Your task to perform on an android device: Open calendar and show me the fourth week of next month Image 0: 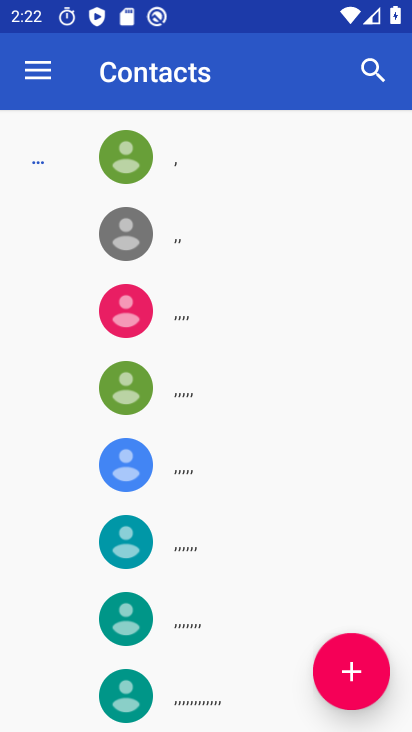
Step 0: press home button
Your task to perform on an android device: Open calendar and show me the fourth week of next month Image 1: 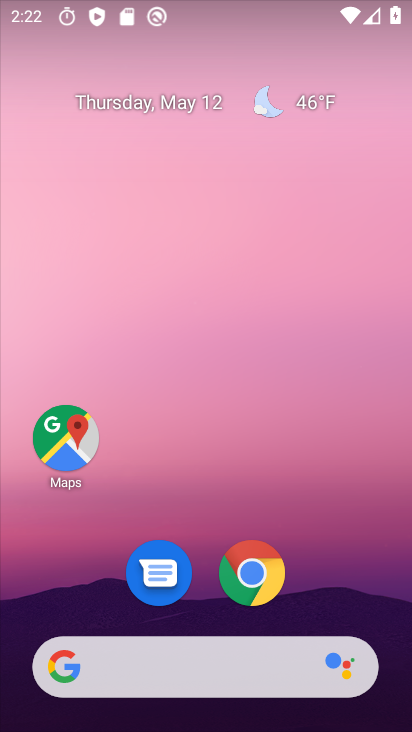
Step 1: click (112, 99)
Your task to perform on an android device: Open calendar and show me the fourth week of next month Image 2: 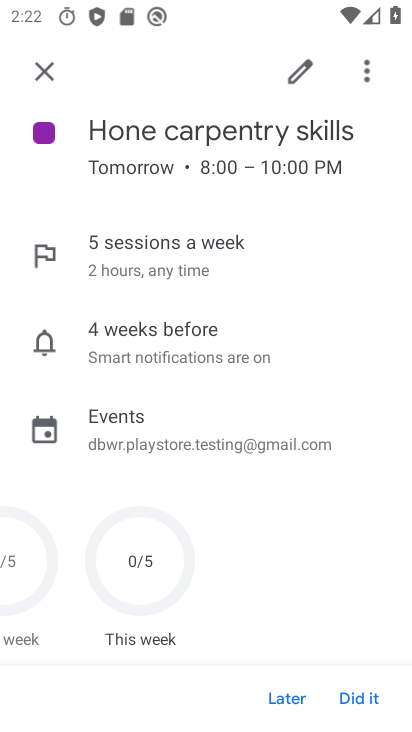
Step 2: click (69, 82)
Your task to perform on an android device: Open calendar and show me the fourth week of next month Image 3: 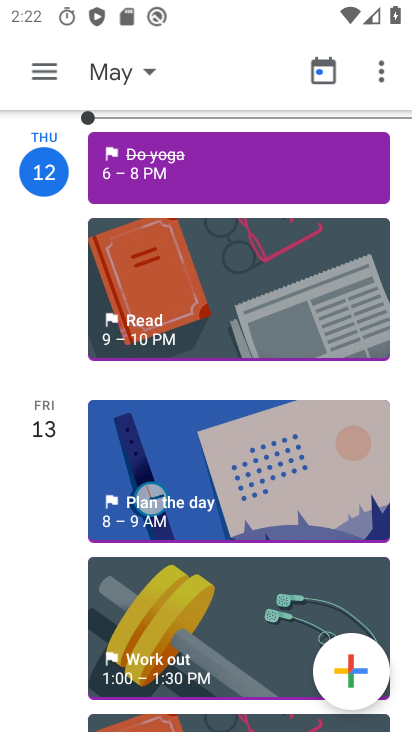
Step 3: click (144, 72)
Your task to perform on an android device: Open calendar and show me the fourth week of next month Image 4: 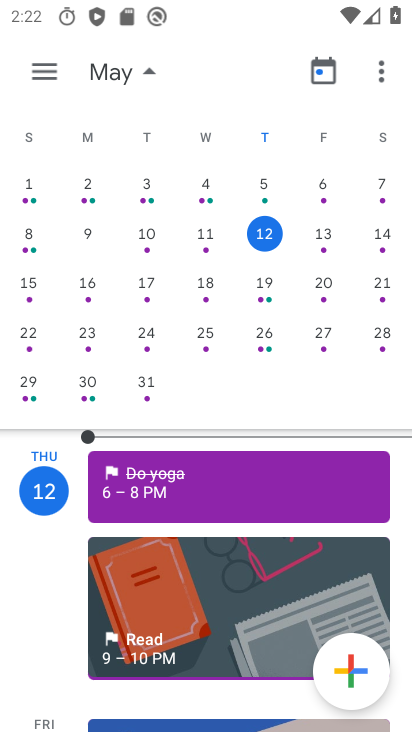
Step 4: drag from (352, 363) to (15, 373)
Your task to perform on an android device: Open calendar and show me the fourth week of next month Image 5: 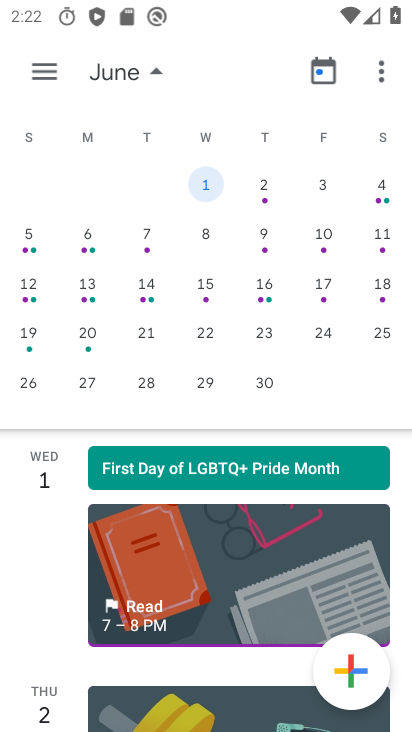
Step 5: click (262, 349)
Your task to perform on an android device: Open calendar and show me the fourth week of next month Image 6: 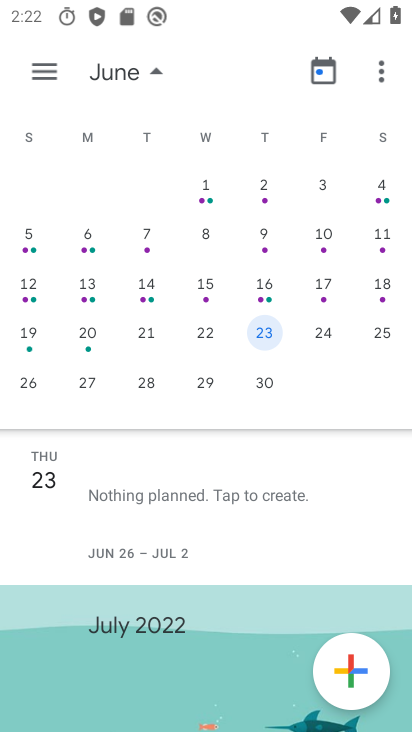
Step 6: task complete